Your task to perform on an android device: set an alarm Image 0: 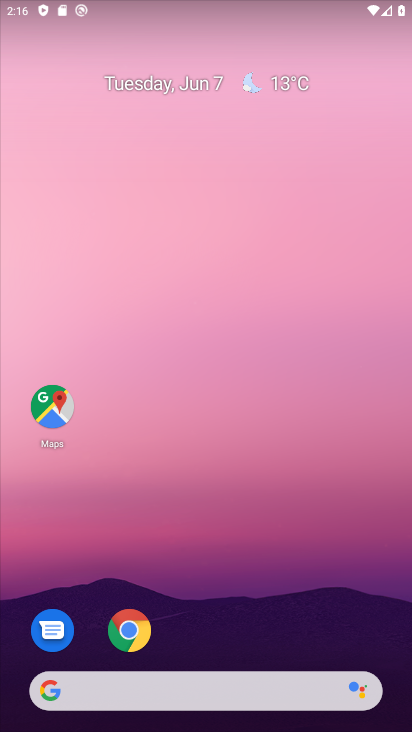
Step 0: drag from (396, 713) to (359, 95)
Your task to perform on an android device: set an alarm Image 1: 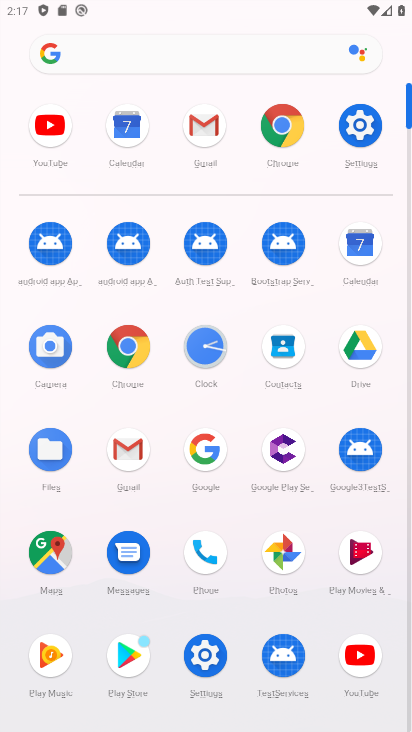
Step 1: click (204, 329)
Your task to perform on an android device: set an alarm Image 2: 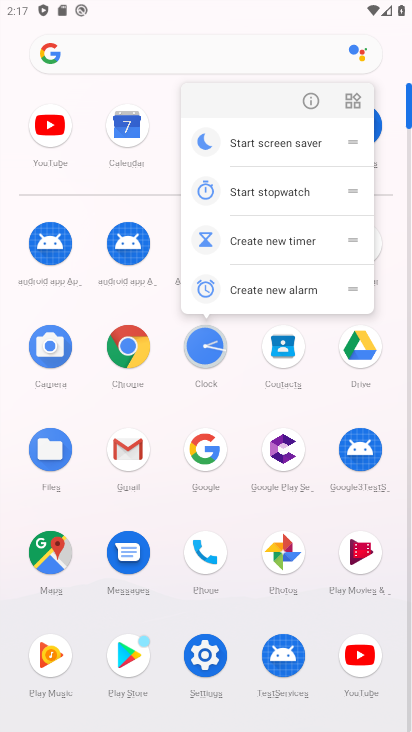
Step 2: click (204, 344)
Your task to perform on an android device: set an alarm Image 3: 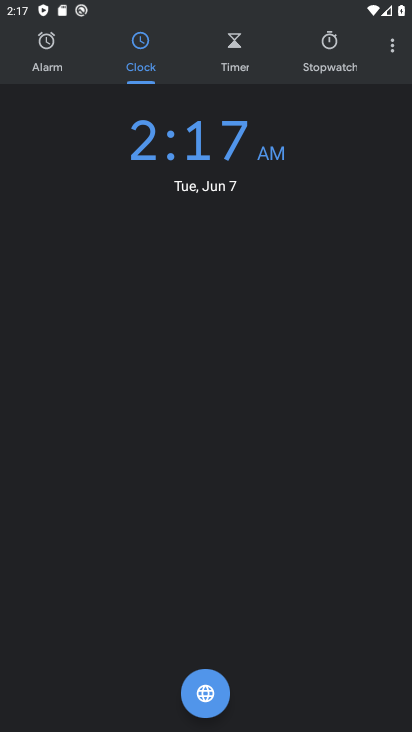
Step 3: click (40, 51)
Your task to perform on an android device: set an alarm Image 4: 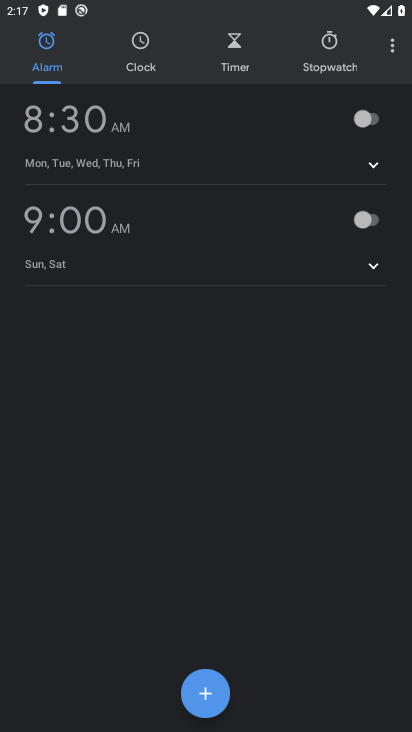
Step 4: click (370, 124)
Your task to perform on an android device: set an alarm Image 5: 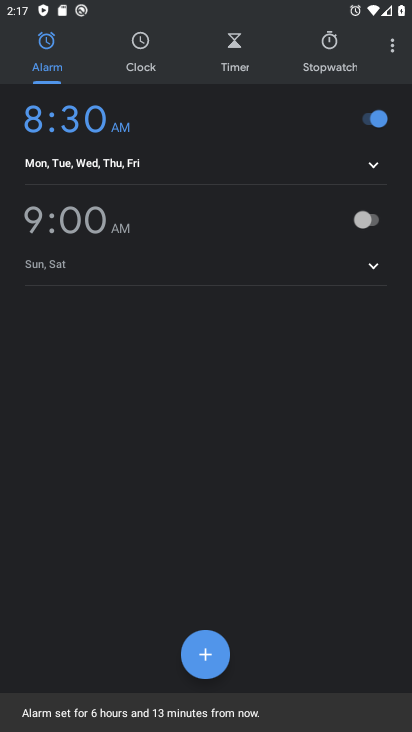
Step 5: task complete